Your task to perform on an android device: Open display settings Image 0: 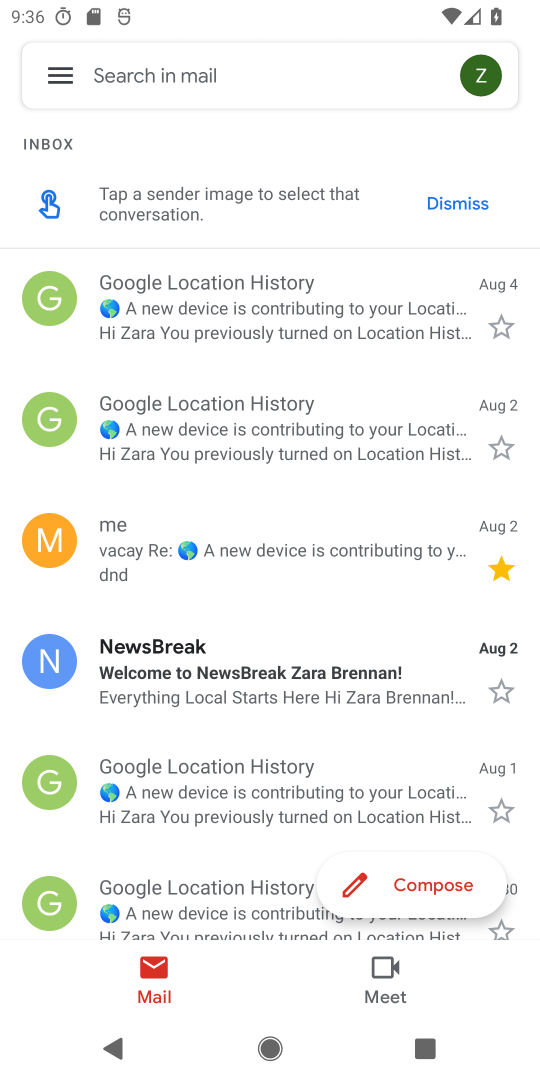
Step 0: press home button
Your task to perform on an android device: Open display settings Image 1: 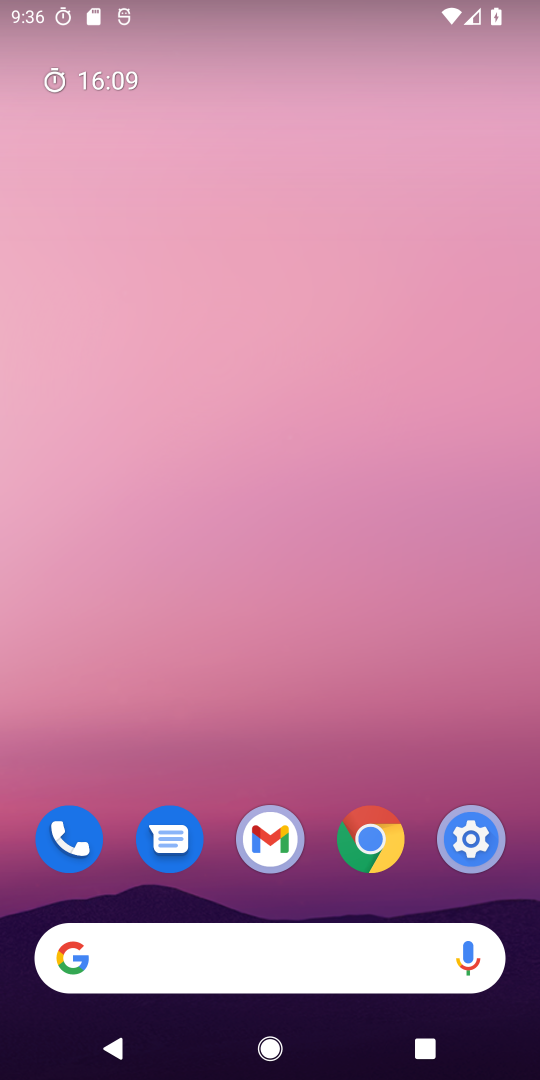
Step 1: drag from (321, 784) to (307, 17)
Your task to perform on an android device: Open display settings Image 2: 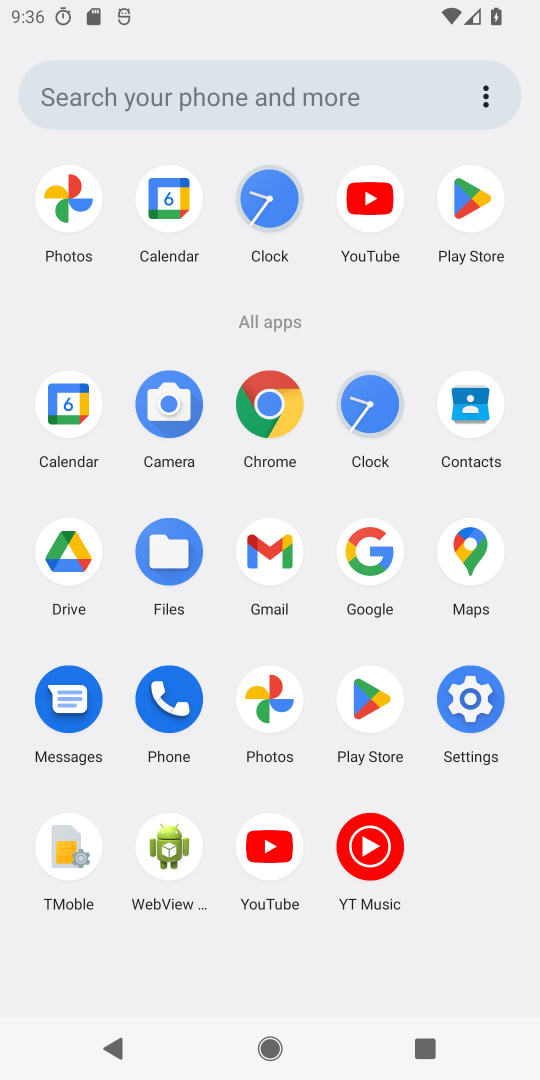
Step 2: click (464, 690)
Your task to perform on an android device: Open display settings Image 3: 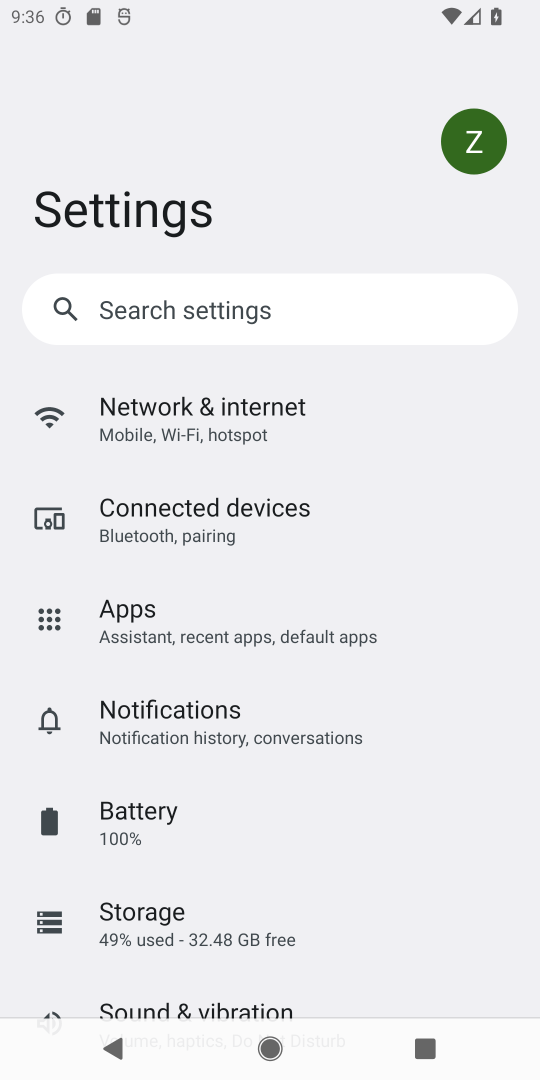
Step 3: drag from (239, 946) to (319, 413)
Your task to perform on an android device: Open display settings Image 4: 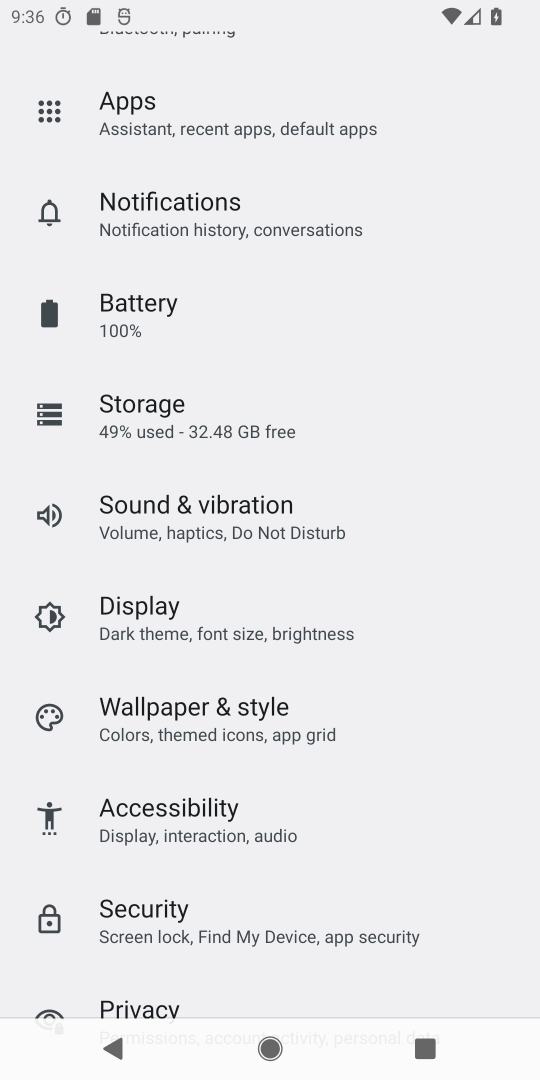
Step 4: click (90, 613)
Your task to perform on an android device: Open display settings Image 5: 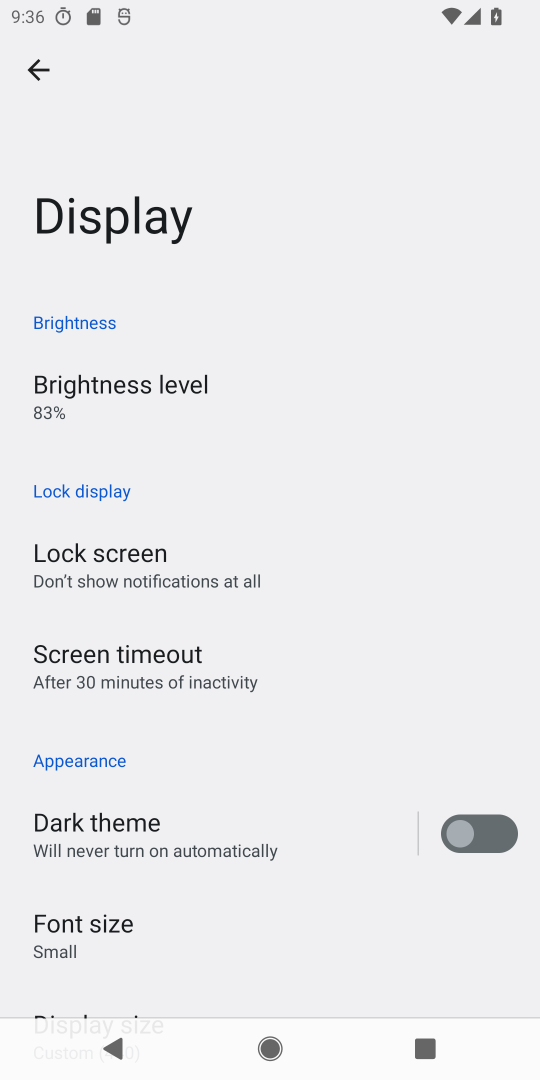
Step 5: task complete